Your task to perform on an android device: Open the calendar and show me this week's events Image 0: 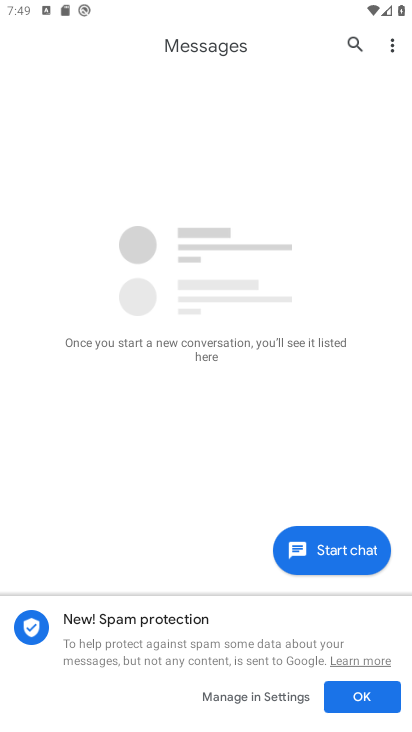
Step 0: press home button
Your task to perform on an android device: Open the calendar and show me this week's events Image 1: 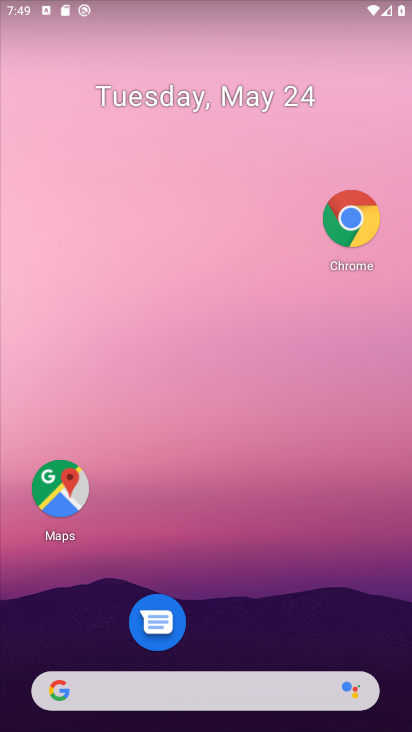
Step 1: drag from (279, 709) to (318, 252)
Your task to perform on an android device: Open the calendar and show me this week's events Image 2: 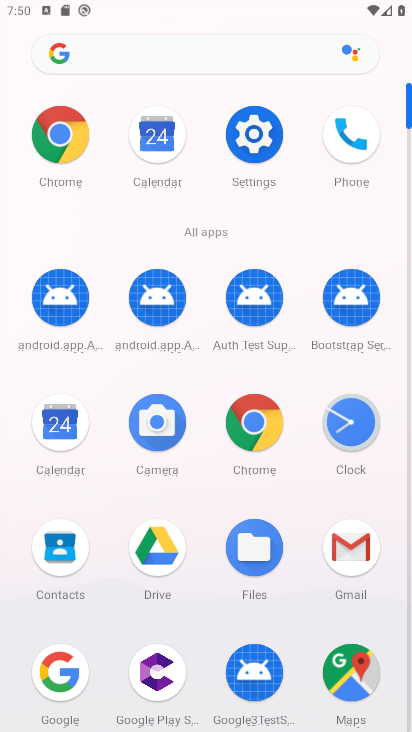
Step 2: click (64, 409)
Your task to perform on an android device: Open the calendar and show me this week's events Image 3: 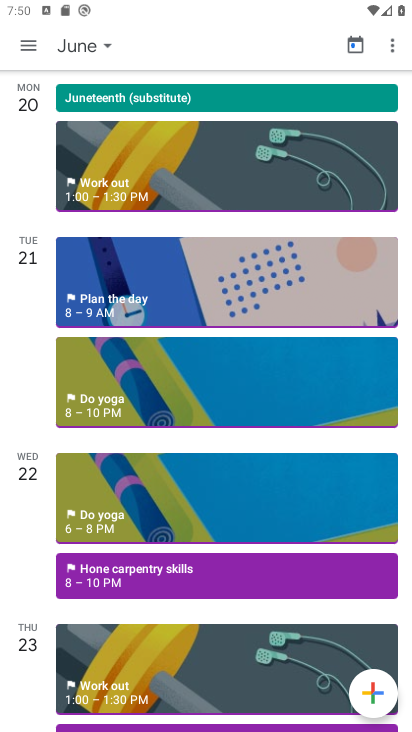
Step 3: click (22, 55)
Your task to perform on an android device: Open the calendar and show me this week's events Image 4: 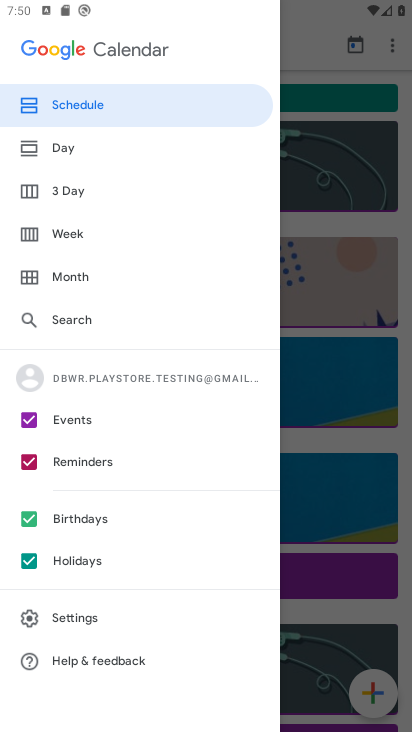
Step 4: click (79, 269)
Your task to perform on an android device: Open the calendar and show me this week's events Image 5: 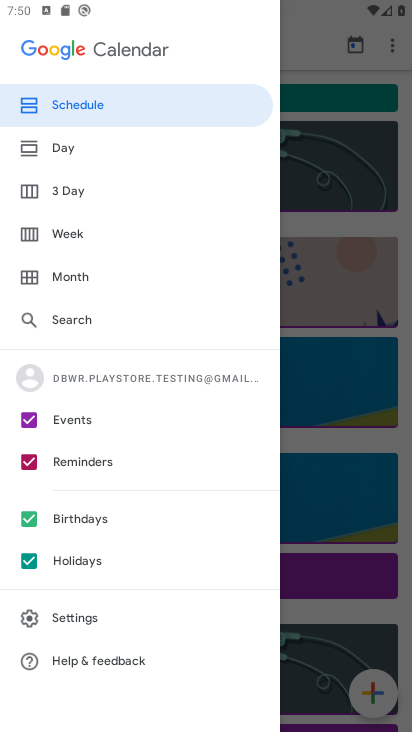
Step 5: click (73, 275)
Your task to perform on an android device: Open the calendar and show me this week's events Image 6: 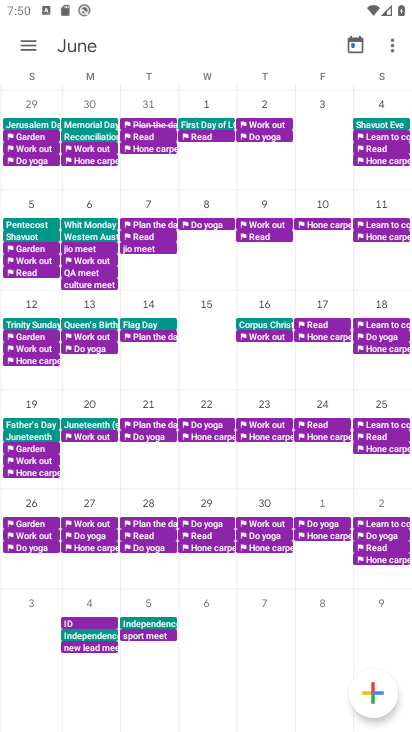
Step 6: drag from (197, 447) to (394, 410)
Your task to perform on an android device: Open the calendar and show me this week's events Image 7: 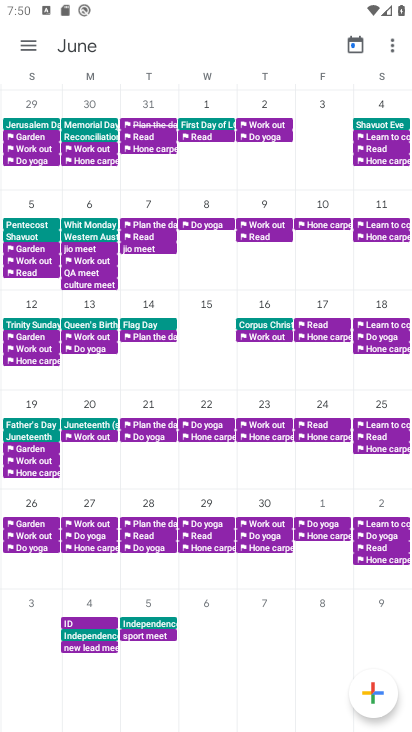
Step 7: drag from (85, 300) to (410, 333)
Your task to perform on an android device: Open the calendar and show me this week's events Image 8: 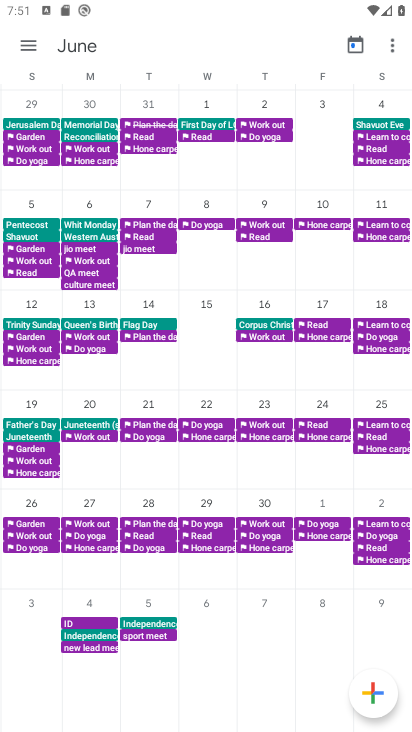
Step 8: drag from (343, 387) to (385, 329)
Your task to perform on an android device: Open the calendar and show me this week's events Image 9: 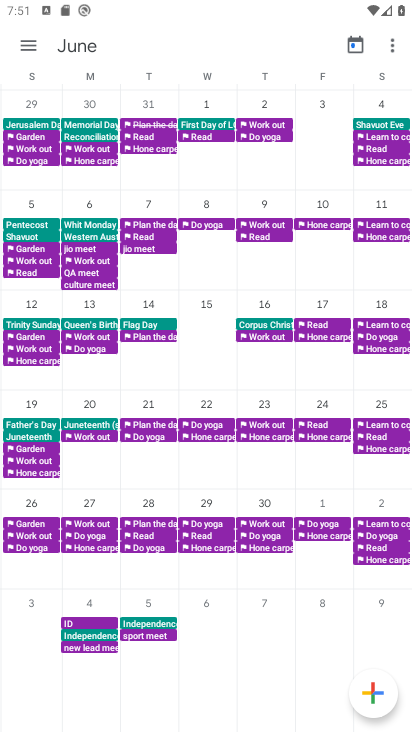
Step 9: click (1, 367)
Your task to perform on an android device: Open the calendar and show me this week's events Image 10: 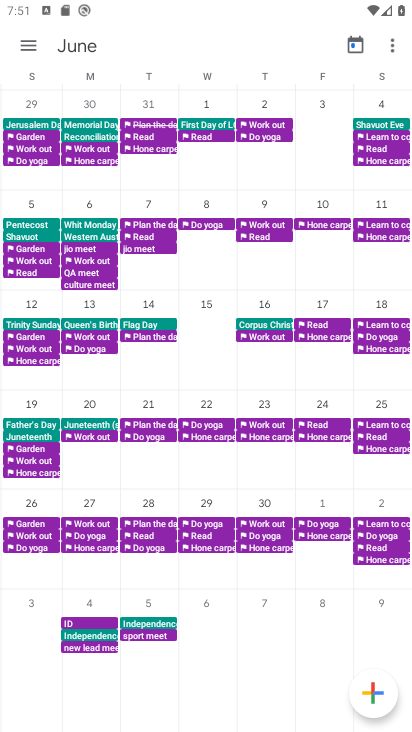
Step 10: drag from (86, 493) to (399, 419)
Your task to perform on an android device: Open the calendar and show me this week's events Image 11: 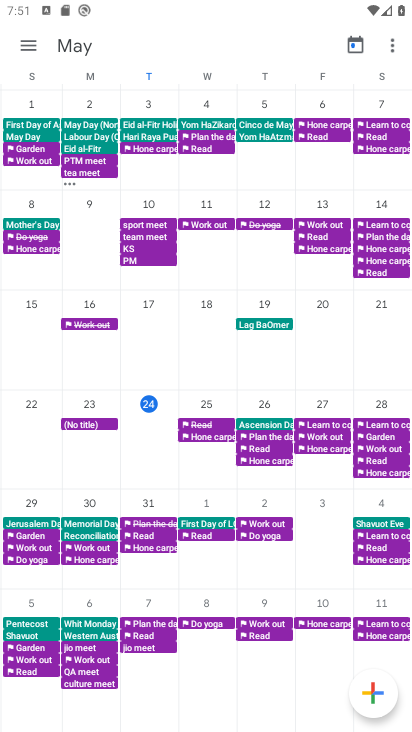
Step 11: click (30, 57)
Your task to perform on an android device: Open the calendar and show me this week's events Image 12: 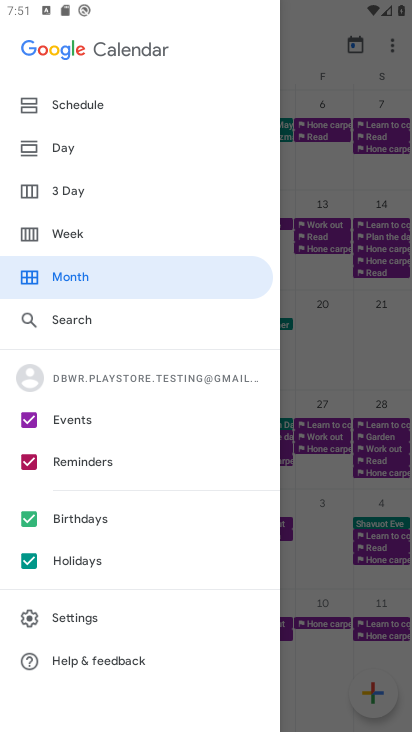
Step 12: click (82, 233)
Your task to perform on an android device: Open the calendar and show me this week's events Image 13: 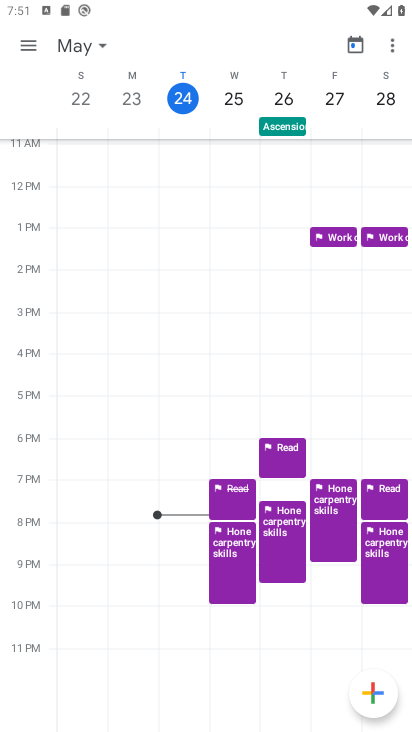
Step 13: task complete